Your task to perform on an android device: Open battery settings Image 0: 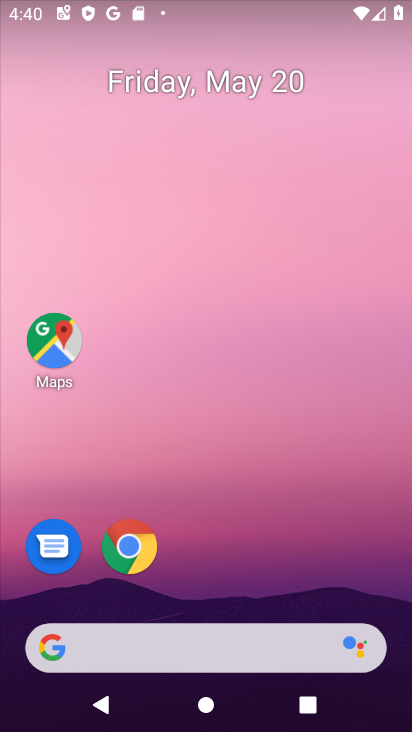
Step 0: drag from (197, 212) to (259, 97)
Your task to perform on an android device: Open battery settings Image 1: 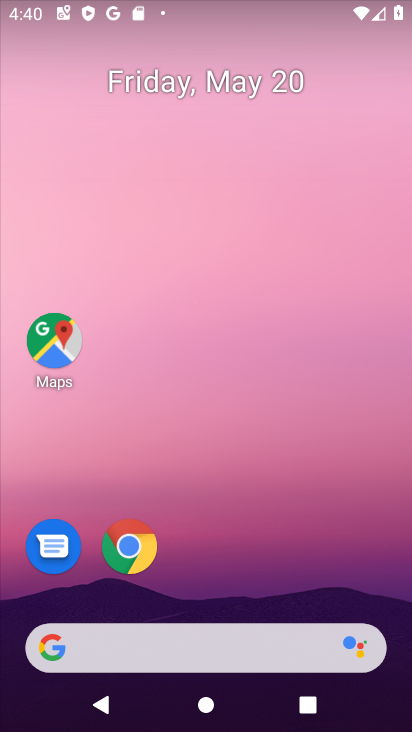
Step 1: drag from (247, 556) to (225, 50)
Your task to perform on an android device: Open battery settings Image 2: 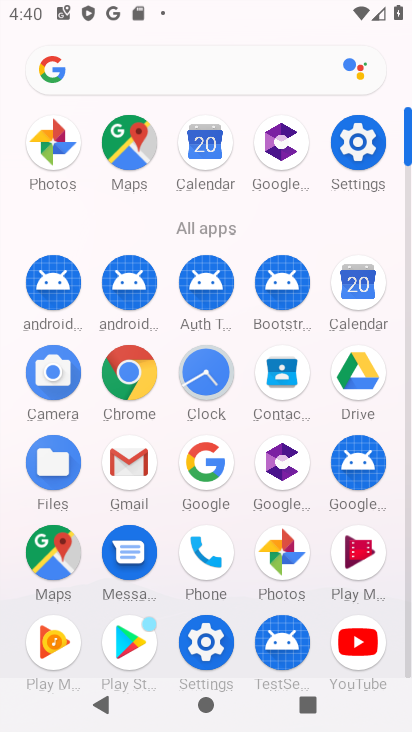
Step 2: click (356, 144)
Your task to perform on an android device: Open battery settings Image 3: 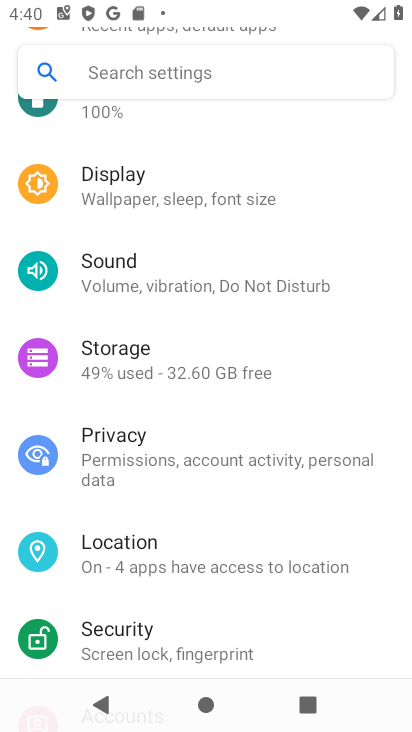
Step 3: drag from (218, 168) to (238, 312)
Your task to perform on an android device: Open battery settings Image 4: 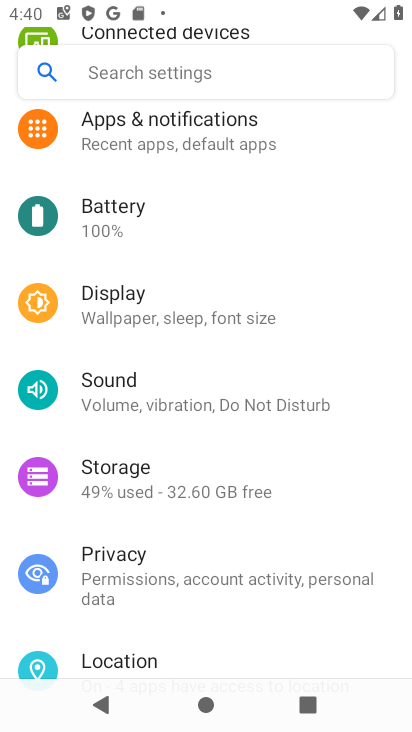
Step 4: click (98, 206)
Your task to perform on an android device: Open battery settings Image 5: 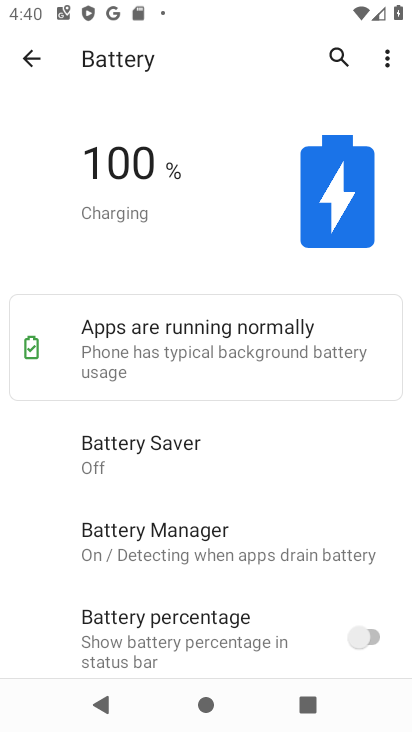
Step 5: task complete